Your task to perform on an android device: Open a new Chrome incognito window Image 0: 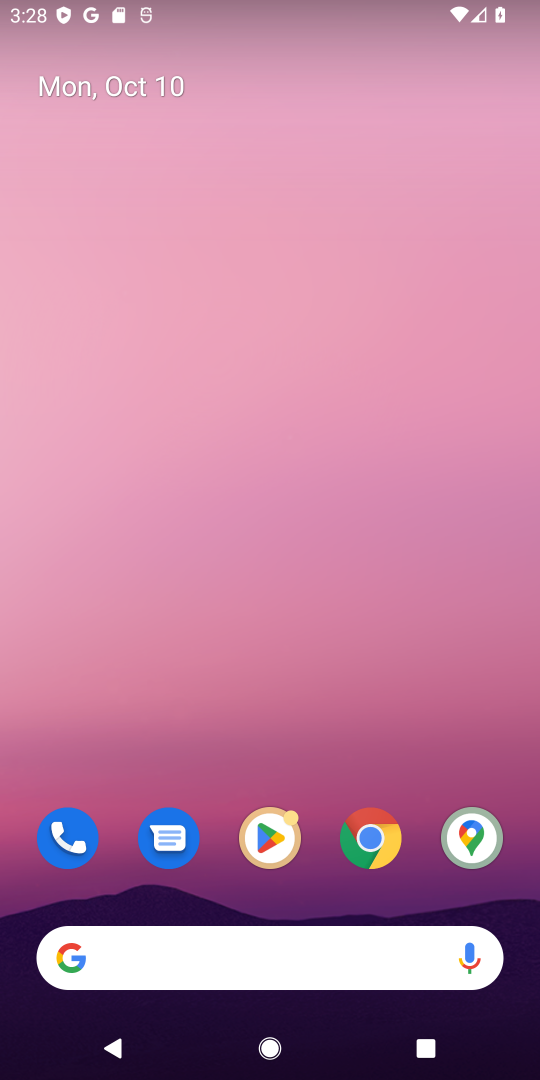
Step 0: click (350, 827)
Your task to perform on an android device: Open a new Chrome incognito window Image 1: 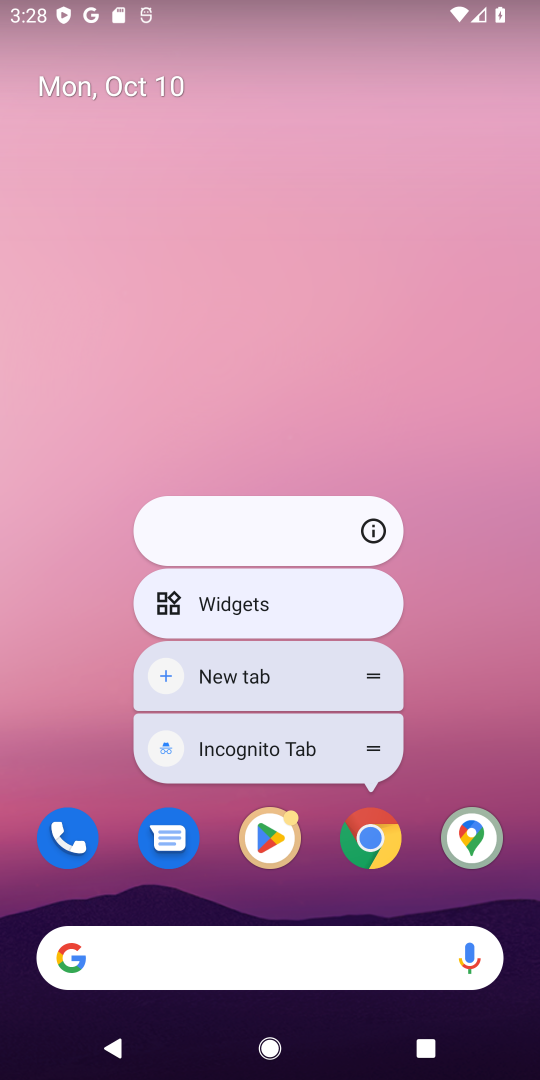
Step 1: click (358, 830)
Your task to perform on an android device: Open a new Chrome incognito window Image 2: 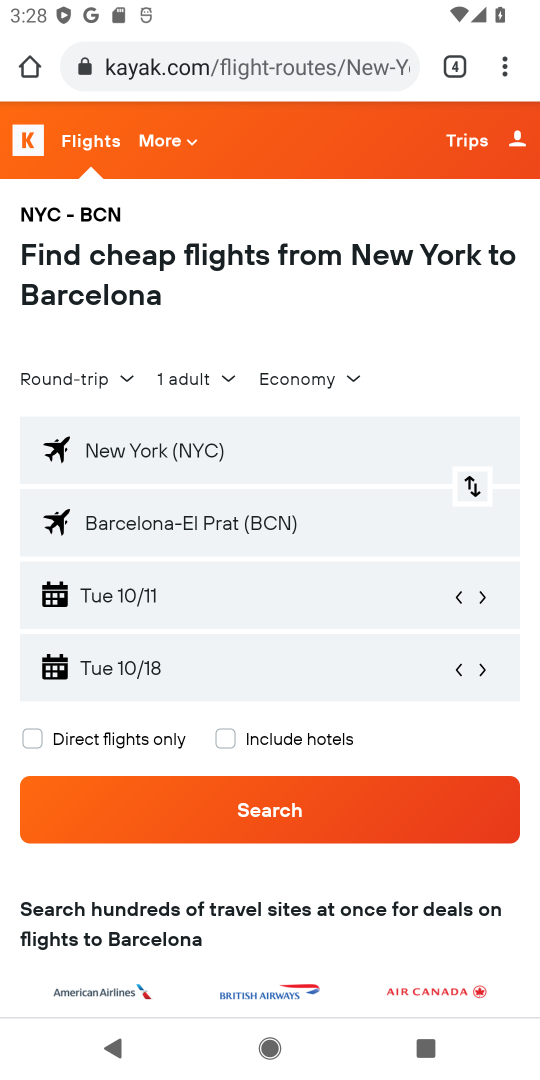
Step 2: click (499, 69)
Your task to perform on an android device: Open a new Chrome incognito window Image 3: 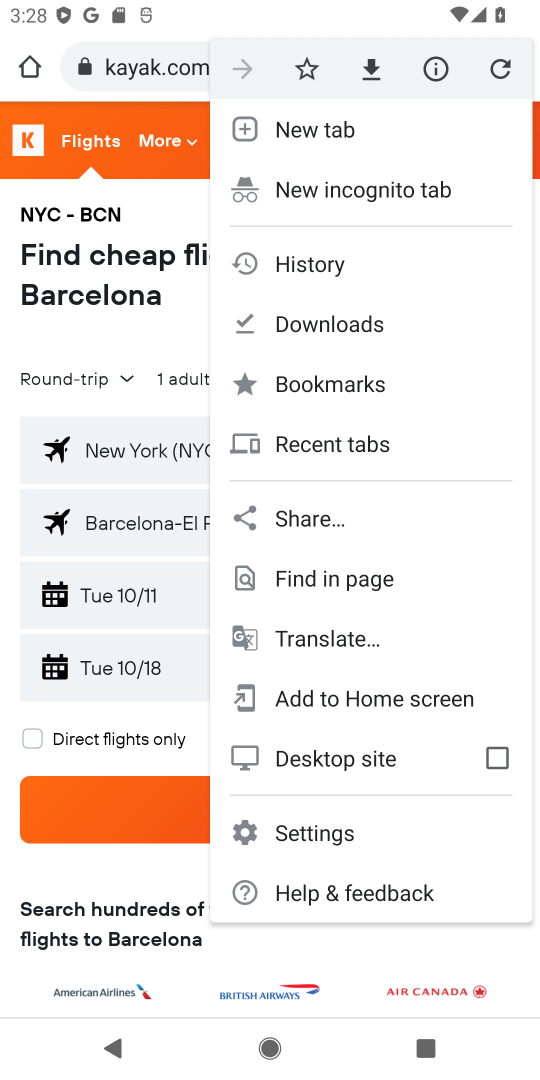
Step 3: click (424, 178)
Your task to perform on an android device: Open a new Chrome incognito window Image 4: 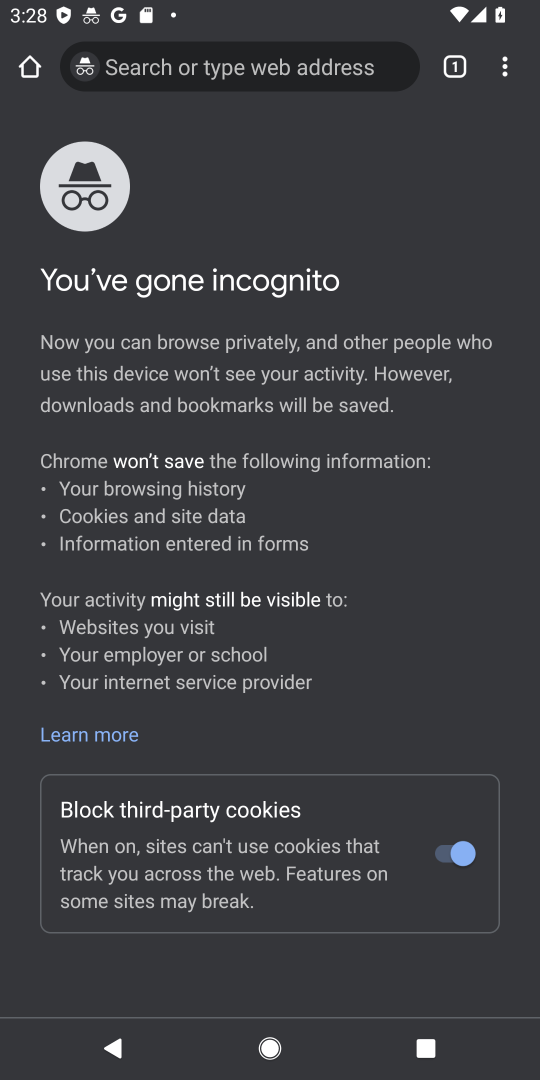
Step 4: task complete